Your task to perform on an android device: toggle sleep mode Image 0: 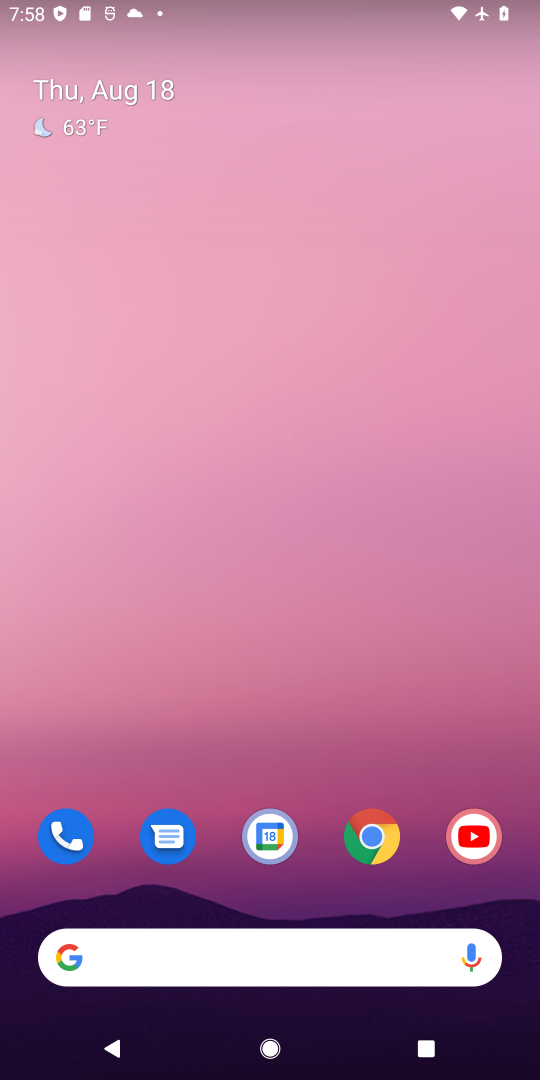
Step 0: drag from (356, 748) to (329, 24)
Your task to perform on an android device: toggle sleep mode Image 1: 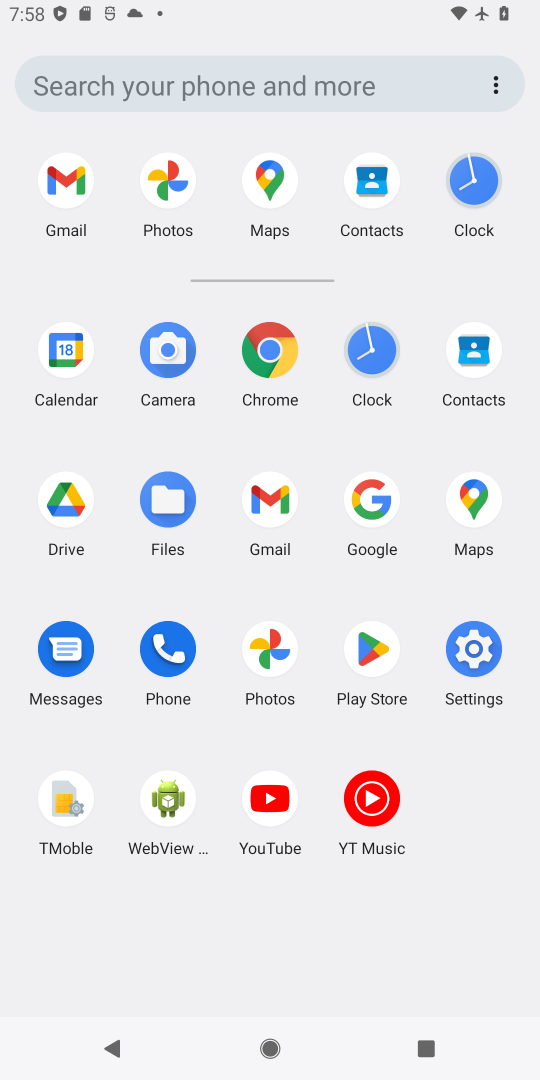
Step 1: click (477, 657)
Your task to perform on an android device: toggle sleep mode Image 2: 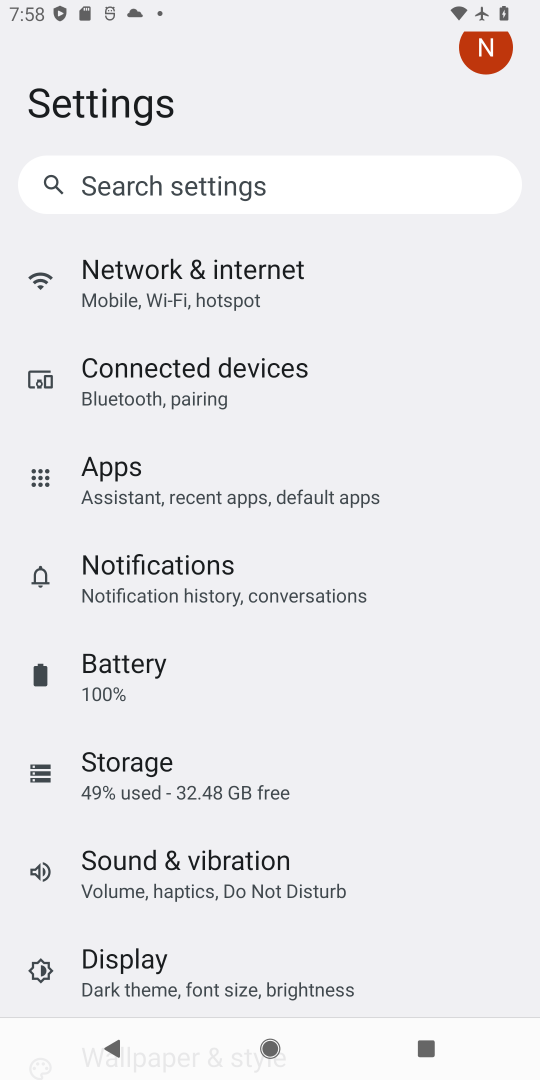
Step 2: click (155, 982)
Your task to perform on an android device: toggle sleep mode Image 3: 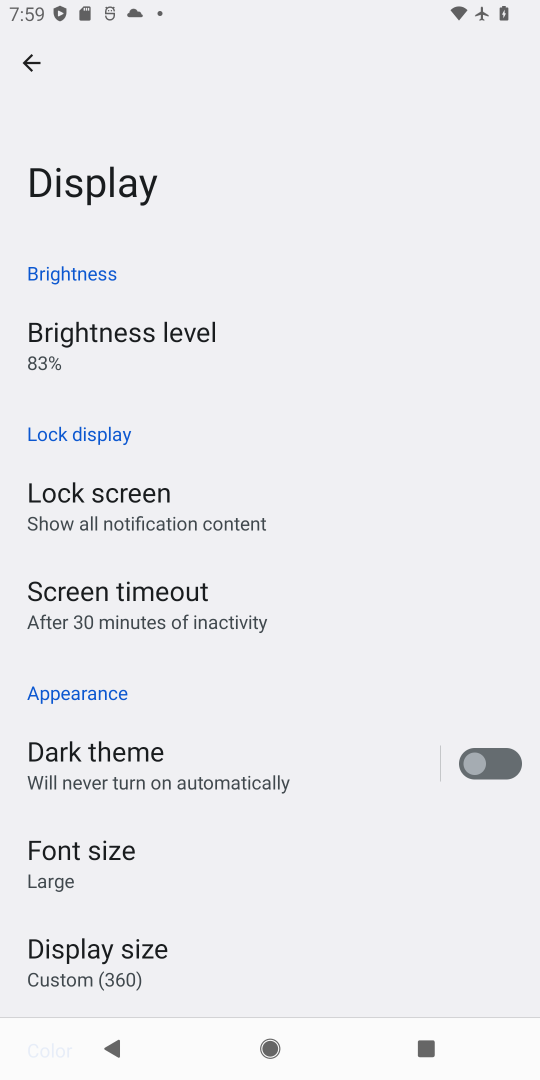
Step 3: click (175, 631)
Your task to perform on an android device: toggle sleep mode Image 4: 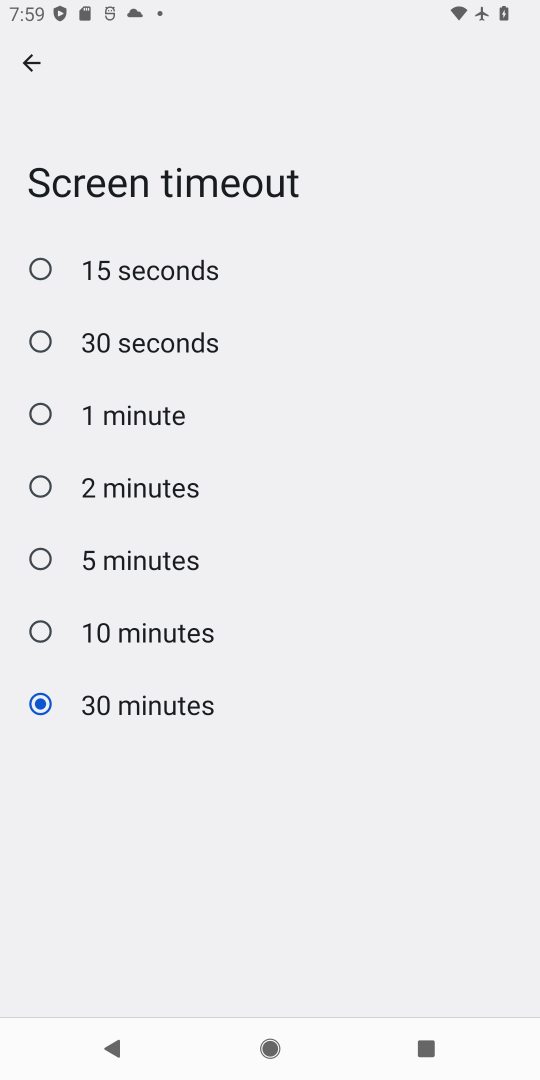
Step 4: click (171, 634)
Your task to perform on an android device: toggle sleep mode Image 5: 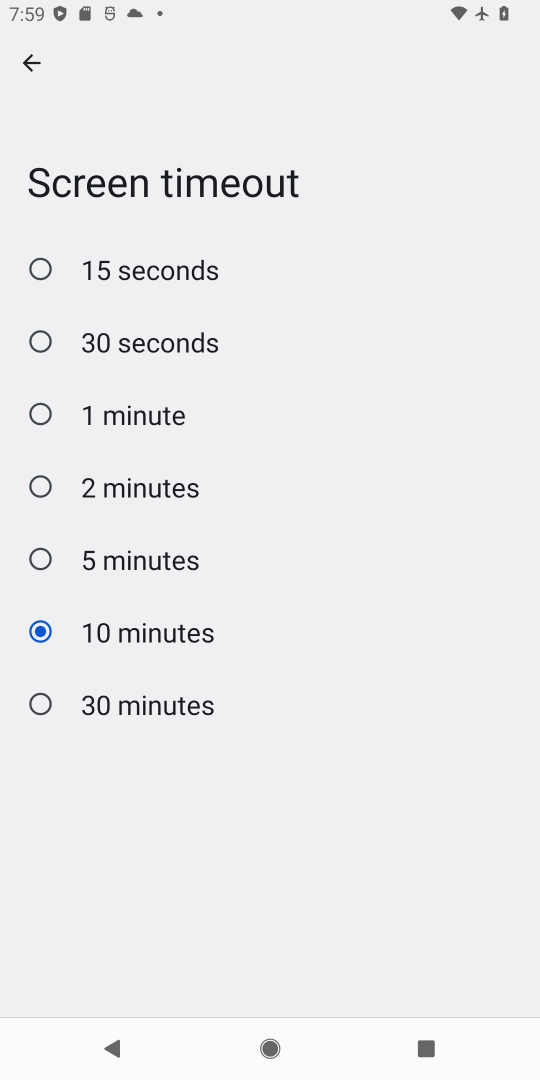
Step 5: task complete